Your task to perform on an android device: Open network settings Image 0: 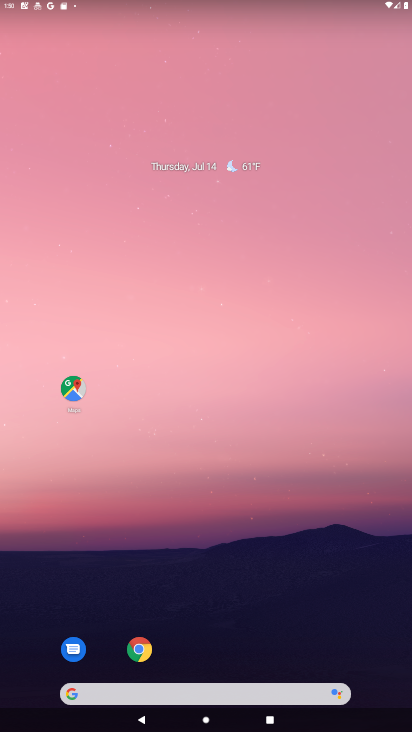
Step 0: drag from (197, 669) to (187, 127)
Your task to perform on an android device: Open network settings Image 1: 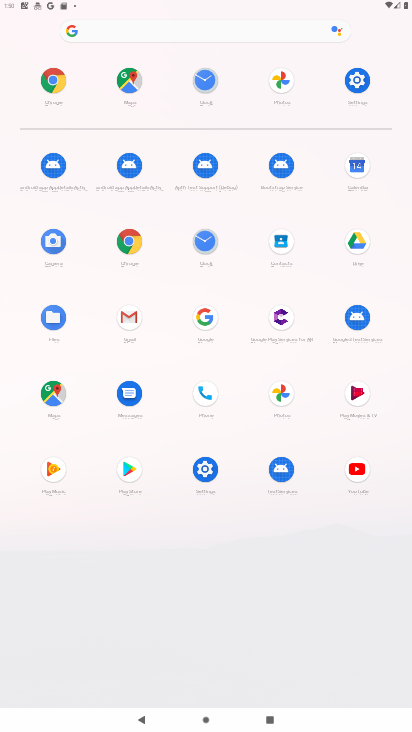
Step 1: click (365, 87)
Your task to perform on an android device: Open network settings Image 2: 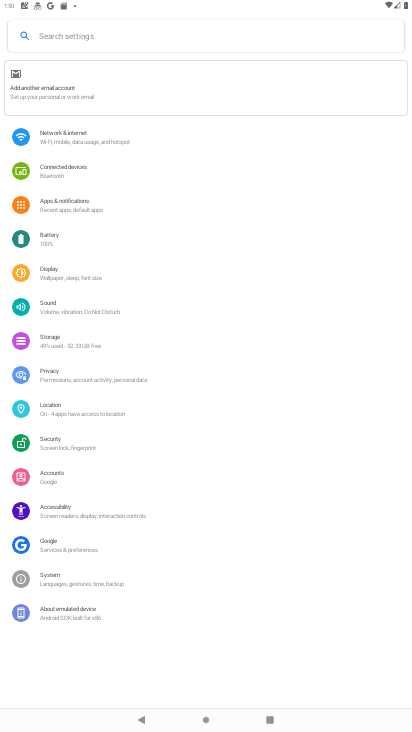
Step 2: click (118, 144)
Your task to perform on an android device: Open network settings Image 3: 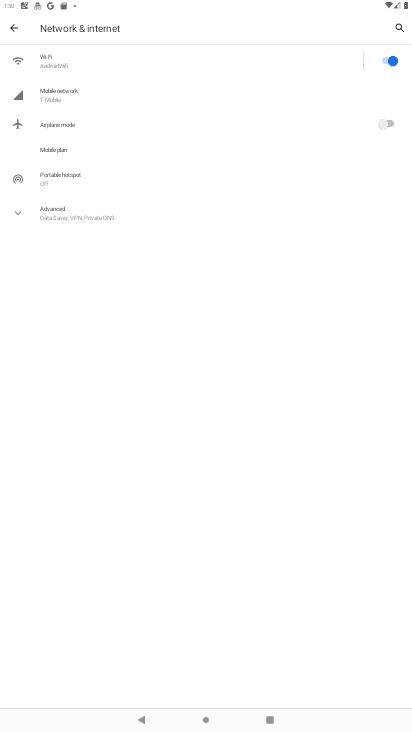
Step 3: task complete